Your task to perform on an android device: Open calendar and show me the fourth week of next month Image 0: 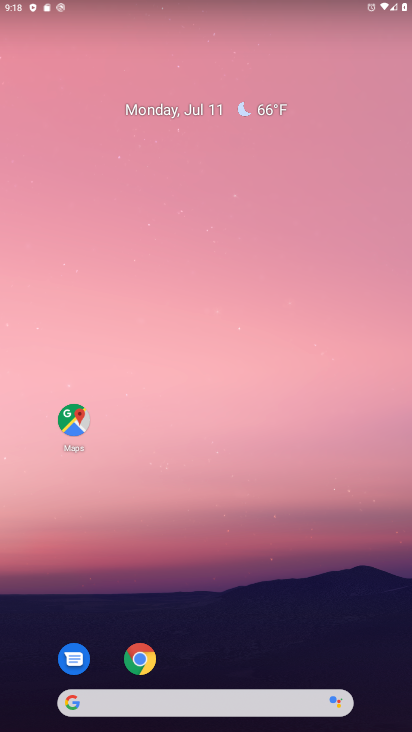
Step 0: drag from (361, 660) to (377, 178)
Your task to perform on an android device: Open calendar and show me the fourth week of next month Image 1: 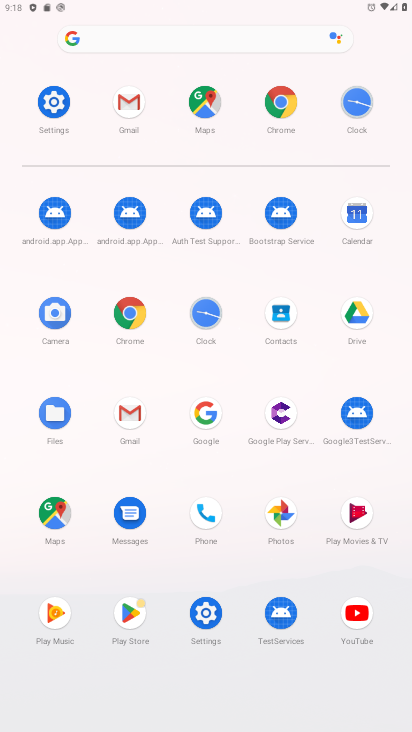
Step 1: click (355, 216)
Your task to perform on an android device: Open calendar and show me the fourth week of next month Image 2: 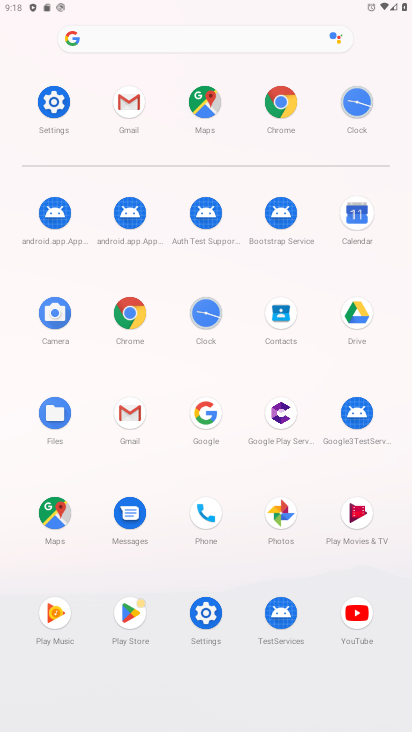
Step 2: click (355, 216)
Your task to perform on an android device: Open calendar and show me the fourth week of next month Image 3: 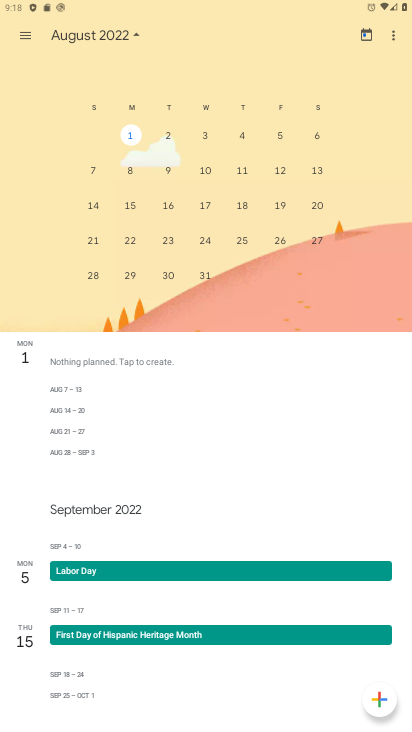
Step 3: click (125, 242)
Your task to perform on an android device: Open calendar and show me the fourth week of next month Image 4: 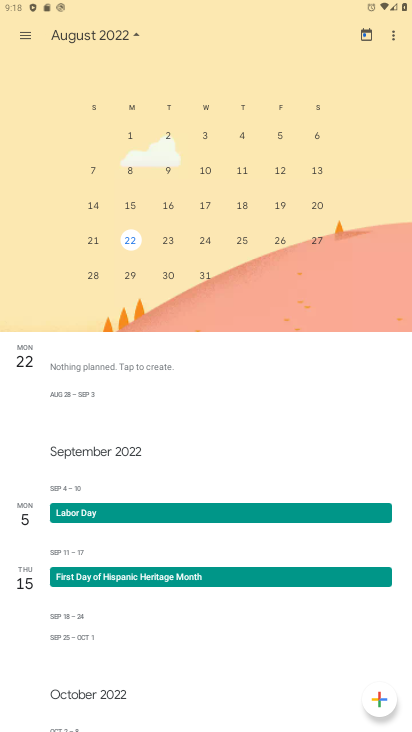
Step 4: task complete